Your task to perform on an android device: turn on the 24-hour format for clock Image 0: 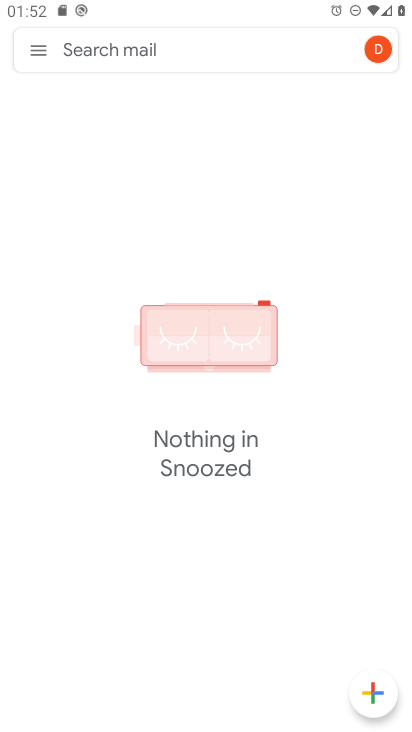
Step 0: press home button
Your task to perform on an android device: turn on the 24-hour format for clock Image 1: 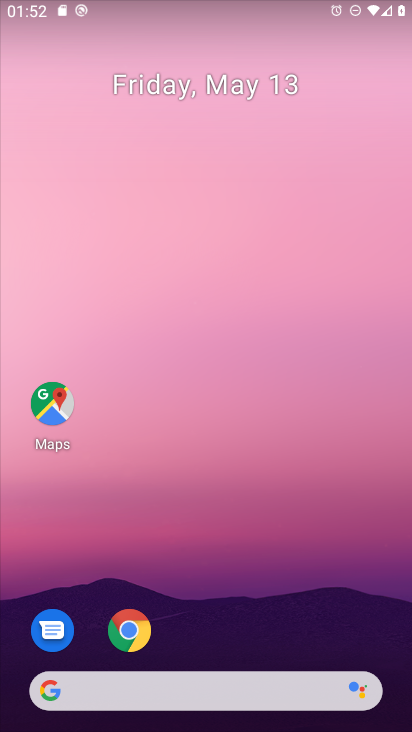
Step 1: drag from (246, 716) to (143, 175)
Your task to perform on an android device: turn on the 24-hour format for clock Image 2: 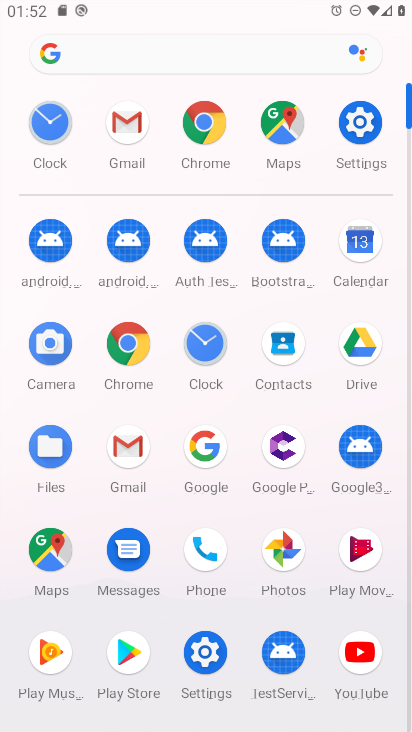
Step 2: click (195, 338)
Your task to perform on an android device: turn on the 24-hour format for clock Image 3: 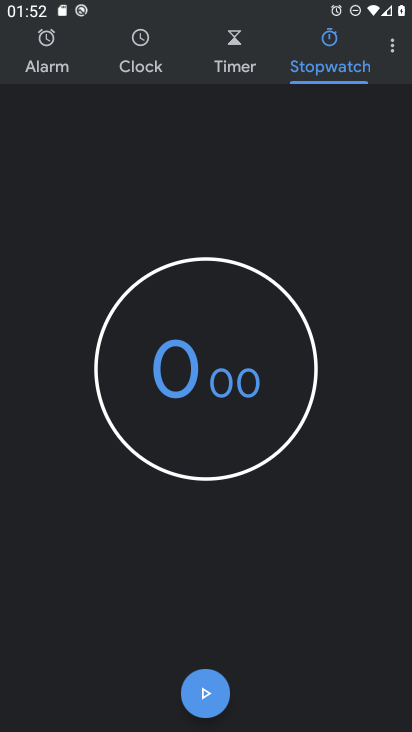
Step 3: click (380, 56)
Your task to perform on an android device: turn on the 24-hour format for clock Image 4: 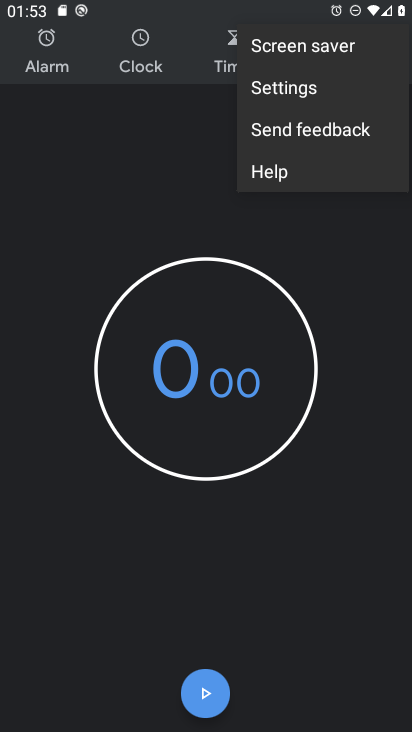
Step 4: click (314, 91)
Your task to perform on an android device: turn on the 24-hour format for clock Image 5: 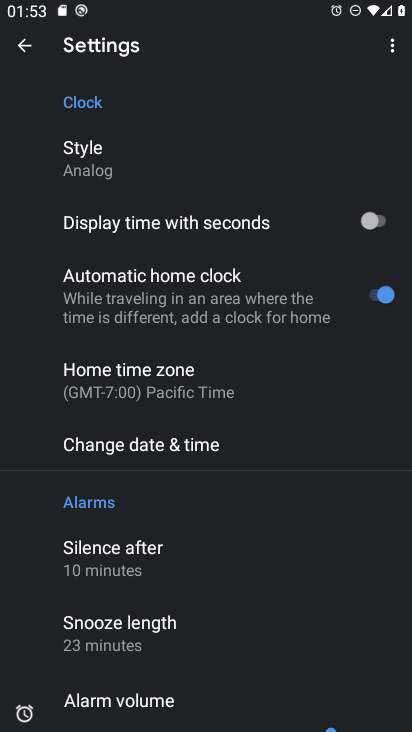
Step 5: click (159, 447)
Your task to perform on an android device: turn on the 24-hour format for clock Image 6: 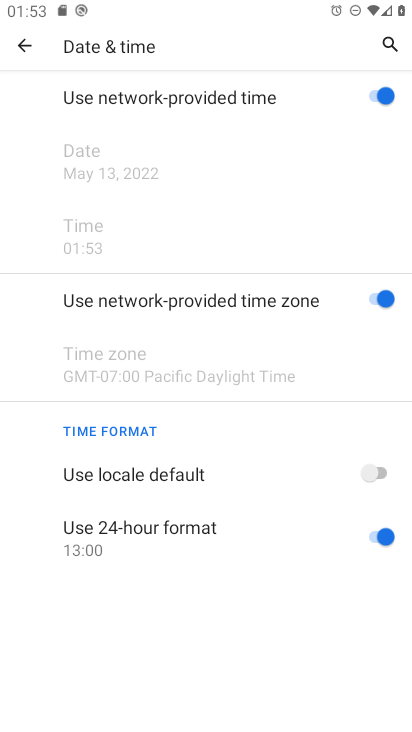
Step 6: click (329, 540)
Your task to perform on an android device: turn on the 24-hour format for clock Image 7: 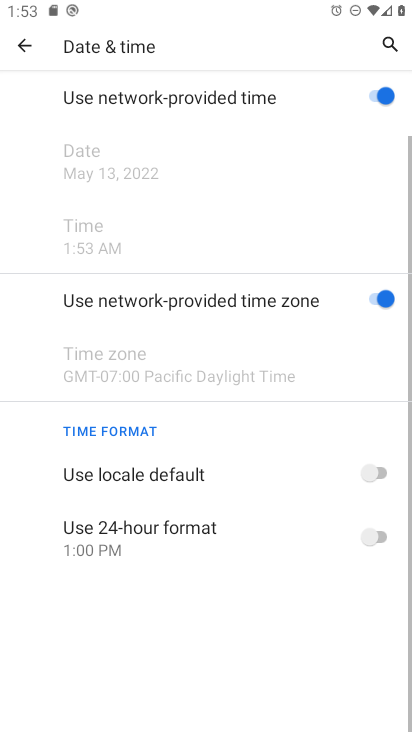
Step 7: click (329, 540)
Your task to perform on an android device: turn on the 24-hour format for clock Image 8: 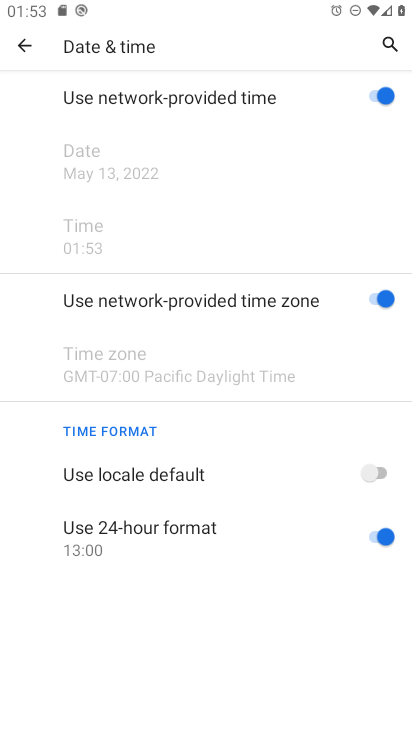
Step 8: task complete